Your task to perform on an android device: Open the Play Movies app and select the watchlist tab. Image 0: 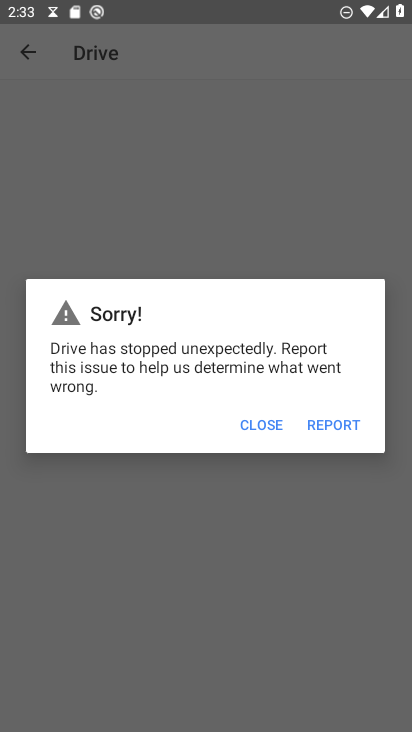
Step 0: click (260, 424)
Your task to perform on an android device: Open the Play Movies app and select the watchlist tab. Image 1: 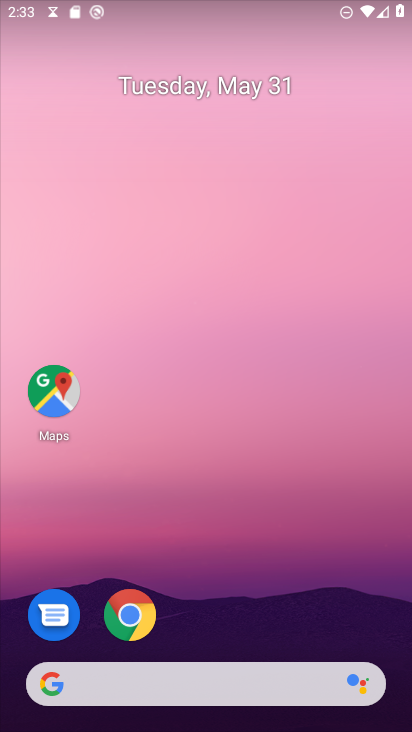
Step 1: drag from (295, 675) to (308, 98)
Your task to perform on an android device: Open the Play Movies app and select the watchlist tab. Image 2: 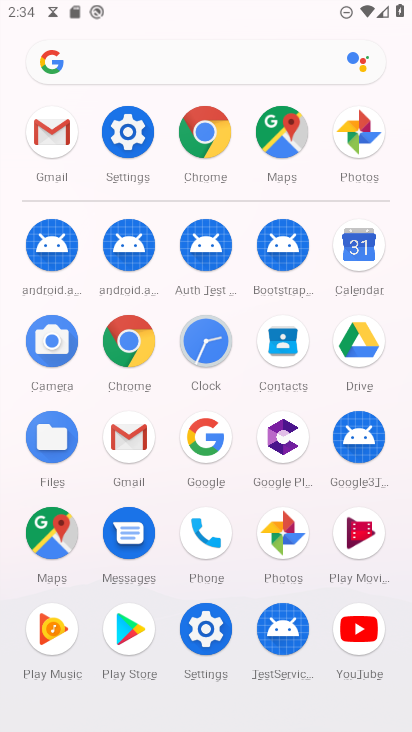
Step 2: click (357, 624)
Your task to perform on an android device: Open the Play Movies app and select the watchlist tab. Image 3: 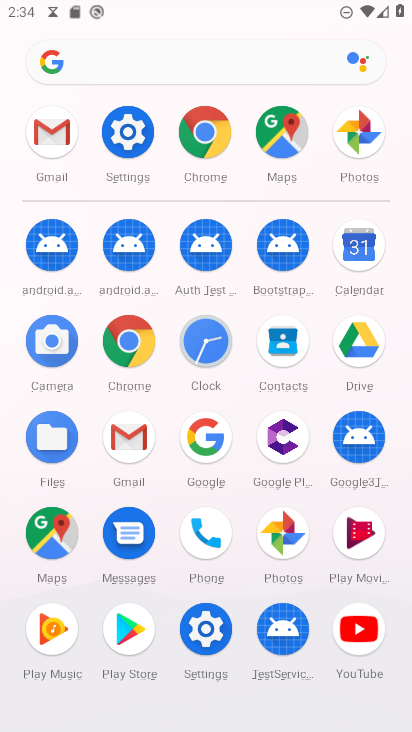
Step 3: click (357, 623)
Your task to perform on an android device: Open the Play Movies app and select the watchlist tab. Image 4: 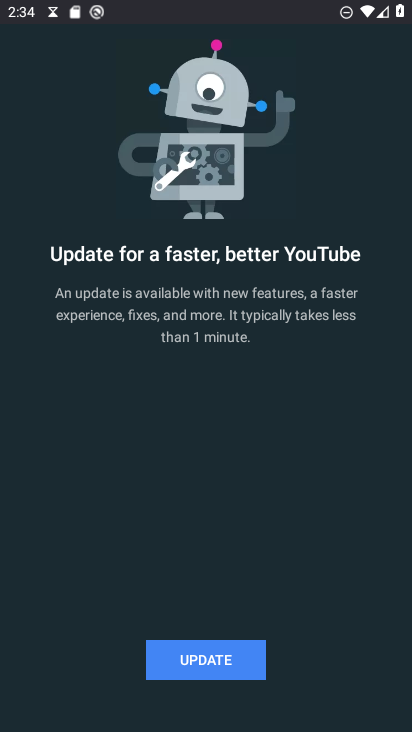
Step 4: click (205, 655)
Your task to perform on an android device: Open the Play Movies app and select the watchlist tab. Image 5: 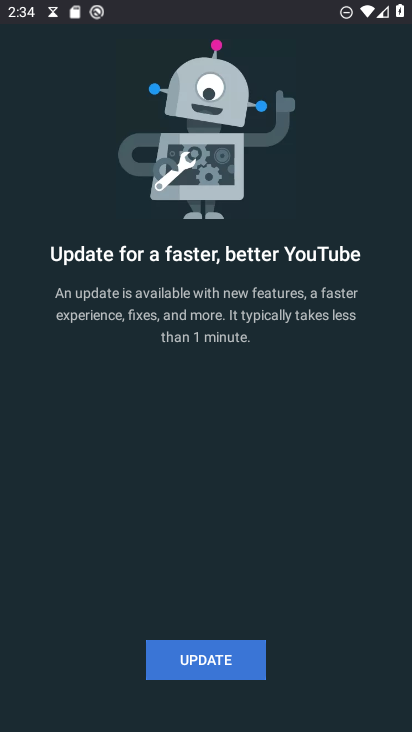
Step 5: click (205, 655)
Your task to perform on an android device: Open the Play Movies app and select the watchlist tab. Image 6: 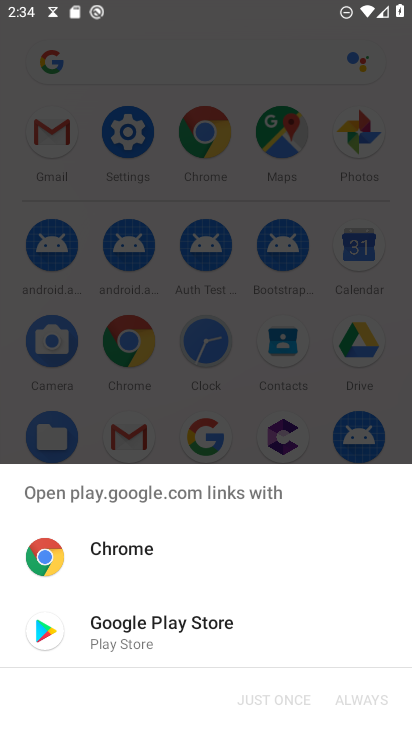
Step 6: click (116, 637)
Your task to perform on an android device: Open the Play Movies app and select the watchlist tab. Image 7: 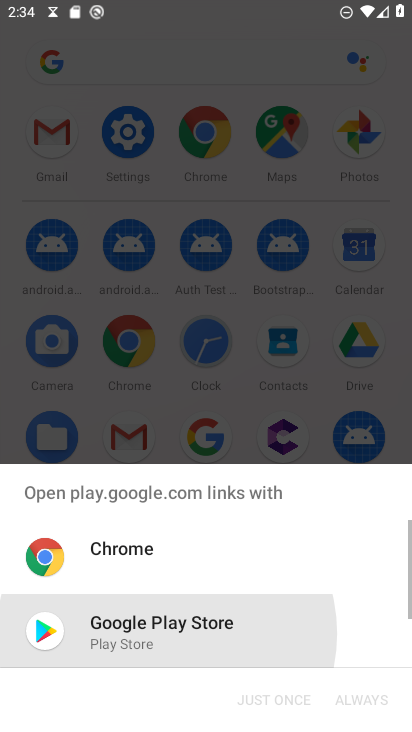
Step 7: click (114, 637)
Your task to perform on an android device: Open the Play Movies app and select the watchlist tab. Image 8: 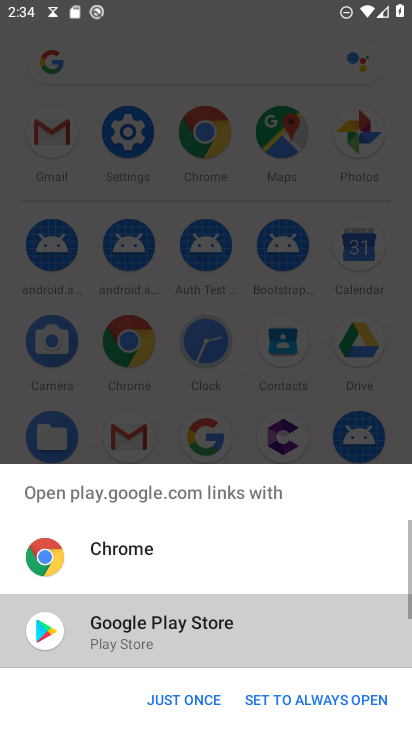
Step 8: click (109, 635)
Your task to perform on an android device: Open the Play Movies app and select the watchlist tab. Image 9: 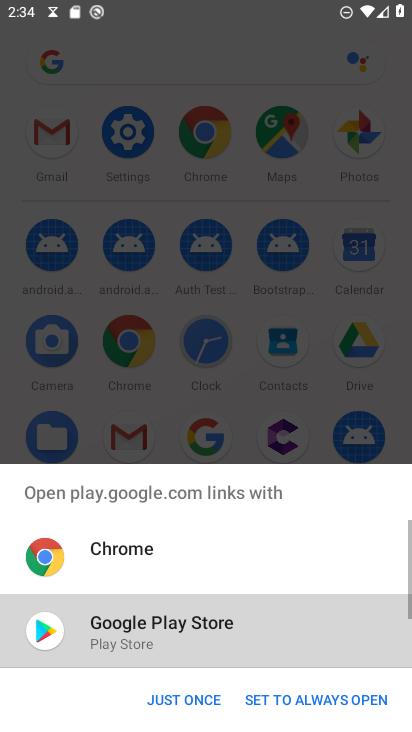
Step 9: click (114, 634)
Your task to perform on an android device: Open the Play Movies app and select the watchlist tab. Image 10: 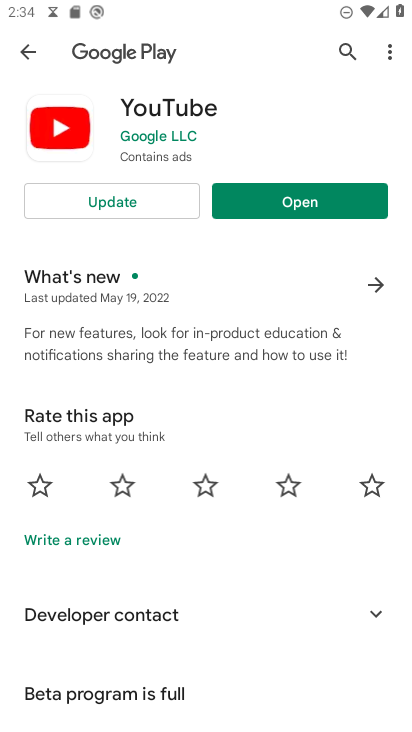
Step 10: press back button
Your task to perform on an android device: Open the Play Movies app and select the watchlist tab. Image 11: 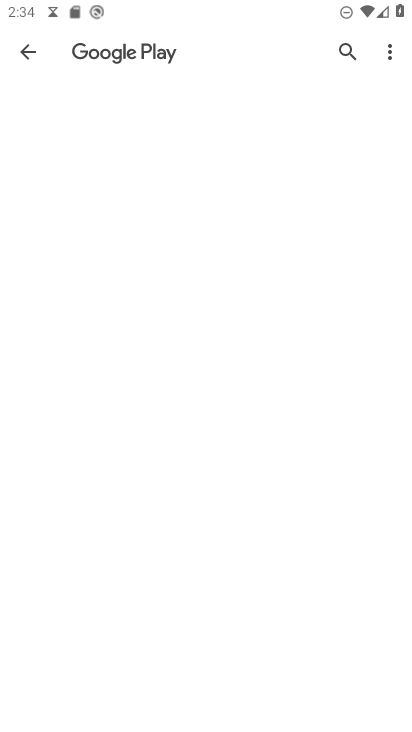
Step 11: press back button
Your task to perform on an android device: Open the Play Movies app and select the watchlist tab. Image 12: 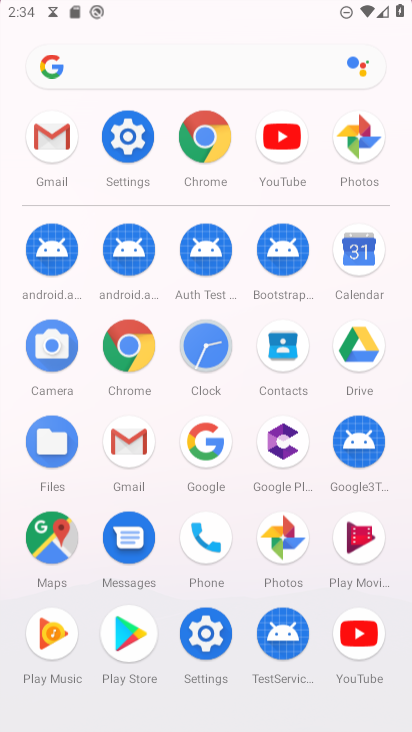
Step 12: press back button
Your task to perform on an android device: Open the Play Movies app and select the watchlist tab. Image 13: 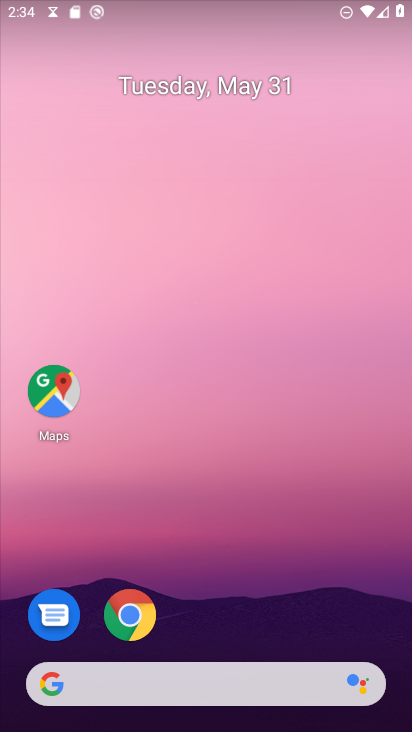
Step 13: drag from (255, 718) to (197, 104)
Your task to perform on an android device: Open the Play Movies app and select the watchlist tab. Image 14: 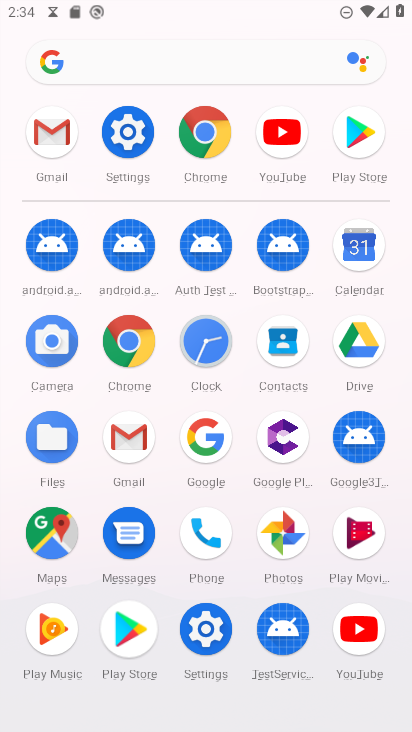
Step 14: click (366, 527)
Your task to perform on an android device: Open the Play Movies app and select the watchlist tab. Image 15: 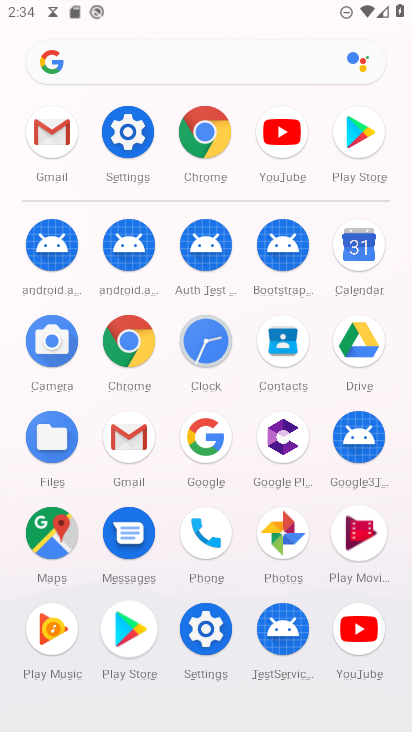
Step 15: click (366, 528)
Your task to perform on an android device: Open the Play Movies app and select the watchlist tab. Image 16: 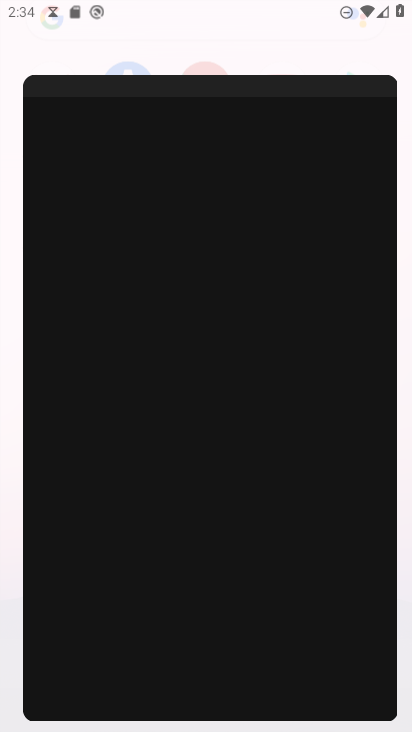
Step 16: click (366, 528)
Your task to perform on an android device: Open the Play Movies app and select the watchlist tab. Image 17: 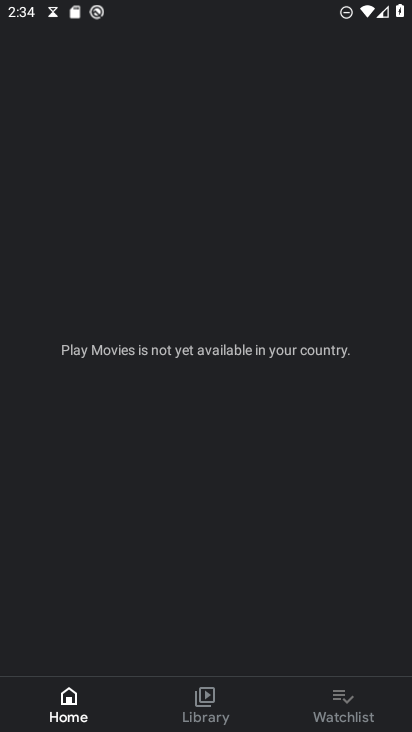
Step 17: click (326, 702)
Your task to perform on an android device: Open the Play Movies app and select the watchlist tab. Image 18: 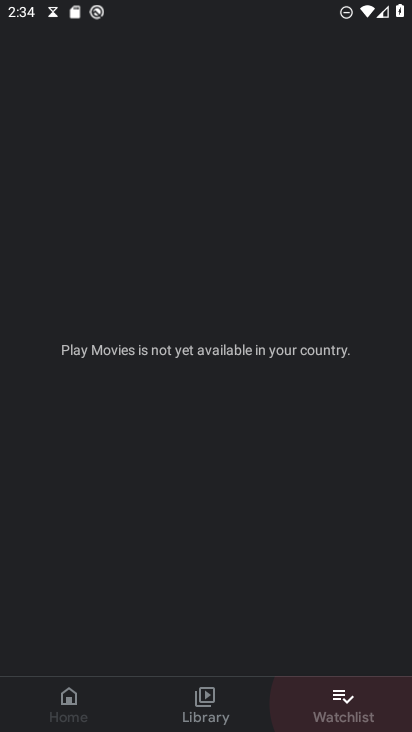
Step 18: click (332, 701)
Your task to perform on an android device: Open the Play Movies app and select the watchlist tab. Image 19: 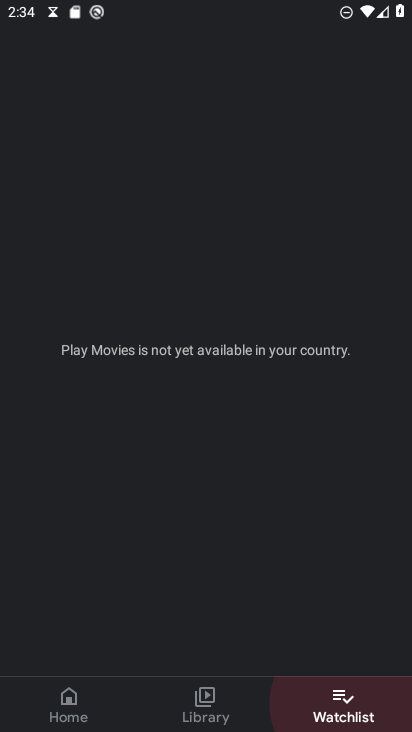
Step 19: click (336, 724)
Your task to perform on an android device: Open the Play Movies app and select the watchlist tab. Image 20: 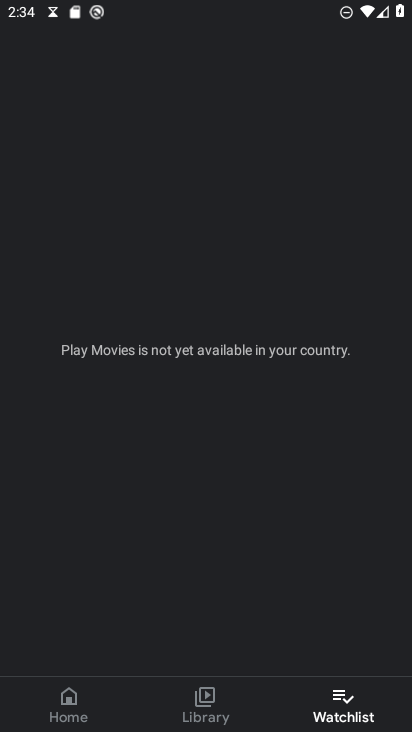
Step 20: task complete